Your task to perform on an android device: turn on data saver in the chrome app Image 0: 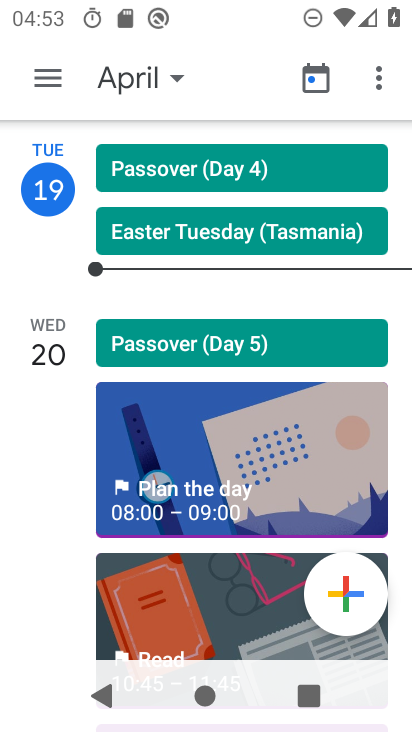
Step 0: press home button
Your task to perform on an android device: turn on data saver in the chrome app Image 1: 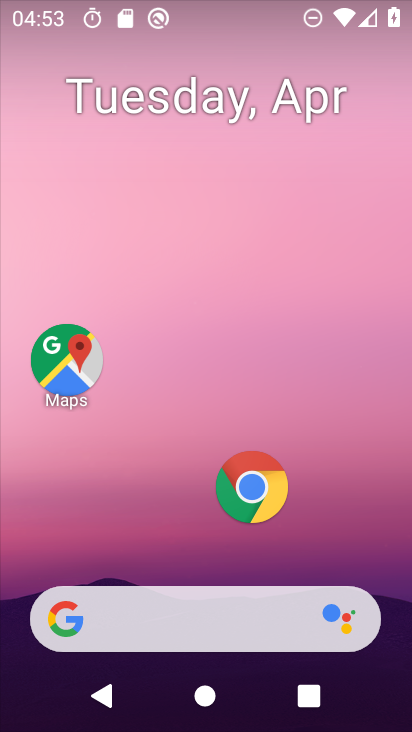
Step 1: click (248, 478)
Your task to perform on an android device: turn on data saver in the chrome app Image 2: 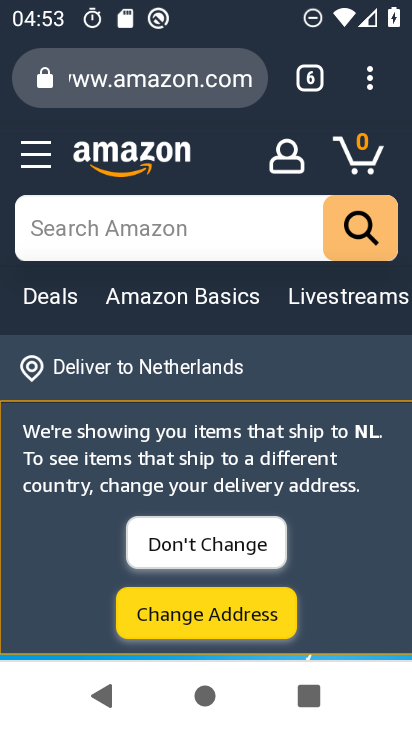
Step 2: drag from (369, 68) to (170, 540)
Your task to perform on an android device: turn on data saver in the chrome app Image 3: 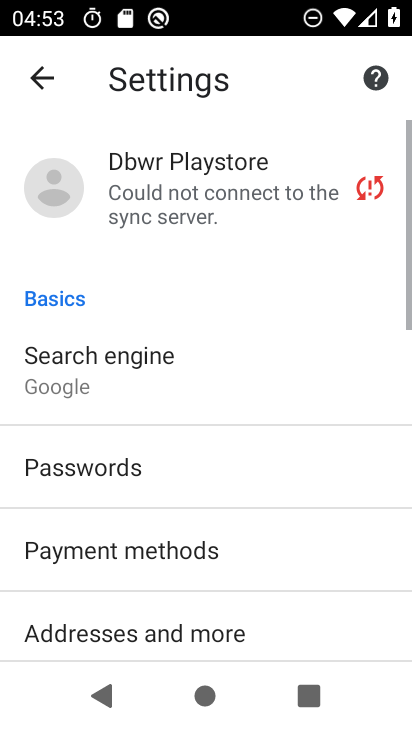
Step 3: drag from (184, 576) to (305, 108)
Your task to perform on an android device: turn on data saver in the chrome app Image 4: 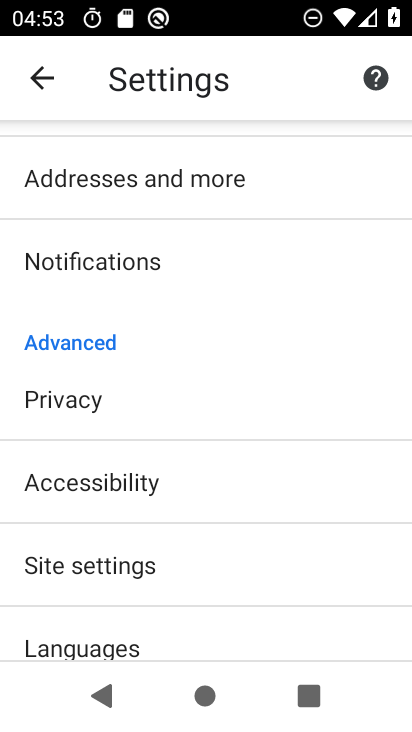
Step 4: drag from (167, 588) to (249, 272)
Your task to perform on an android device: turn on data saver in the chrome app Image 5: 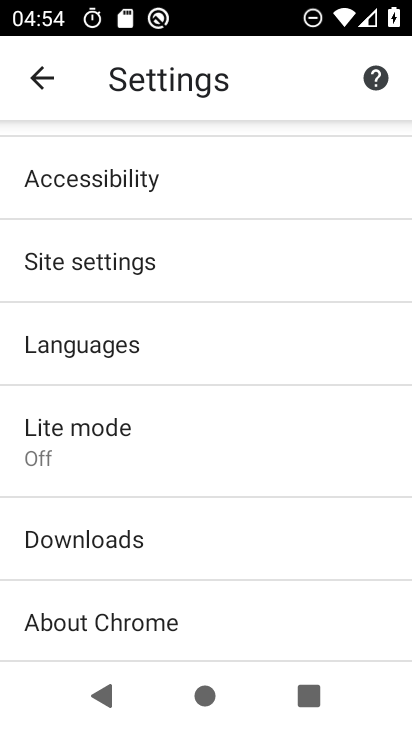
Step 5: click (123, 439)
Your task to perform on an android device: turn on data saver in the chrome app Image 6: 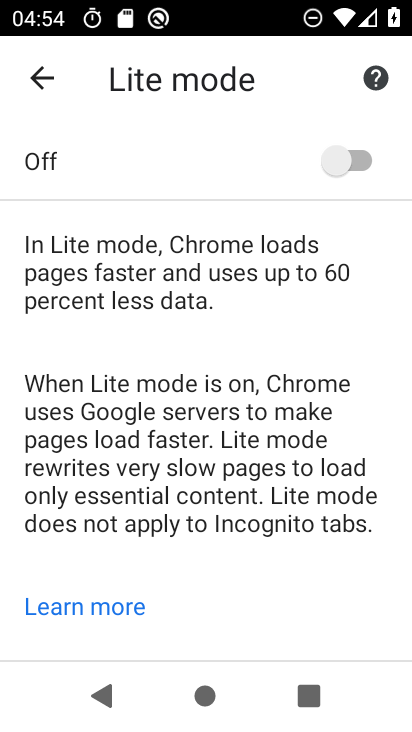
Step 6: click (340, 161)
Your task to perform on an android device: turn on data saver in the chrome app Image 7: 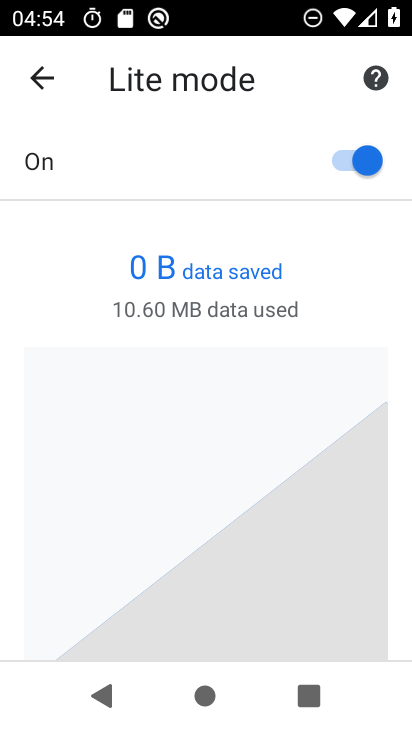
Step 7: task complete